Your task to perform on an android device: Do I have any events tomorrow? Image 0: 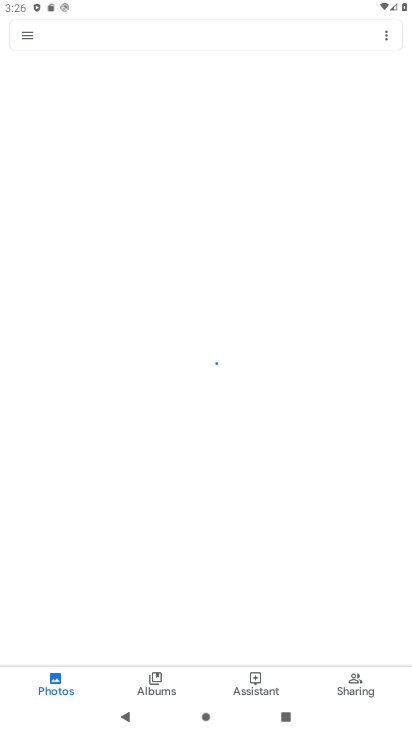
Step 0: press home button
Your task to perform on an android device: Do I have any events tomorrow? Image 1: 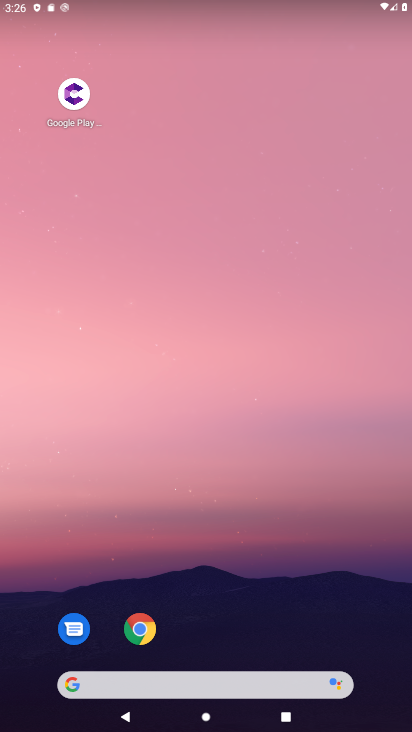
Step 1: drag from (237, 615) to (194, 72)
Your task to perform on an android device: Do I have any events tomorrow? Image 2: 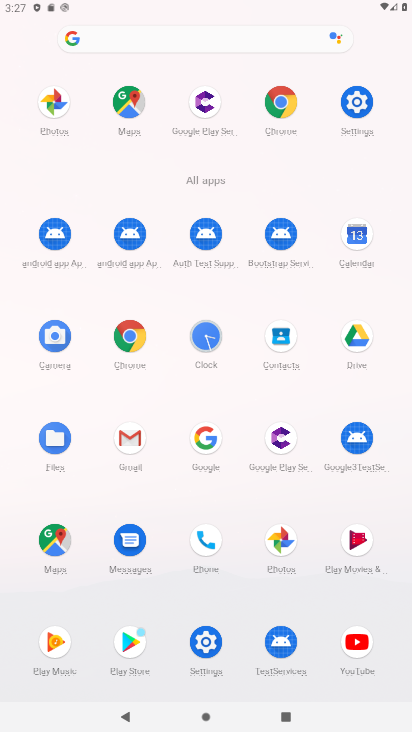
Step 2: click (354, 233)
Your task to perform on an android device: Do I have any events tomorrow? Image 3: 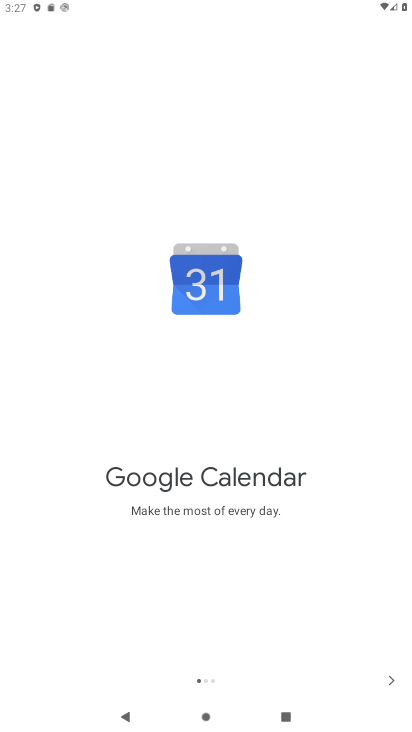
Step 3: click (390, 678)
Your task to perform on an android device: Do I have any events tomorrow? Image 4: 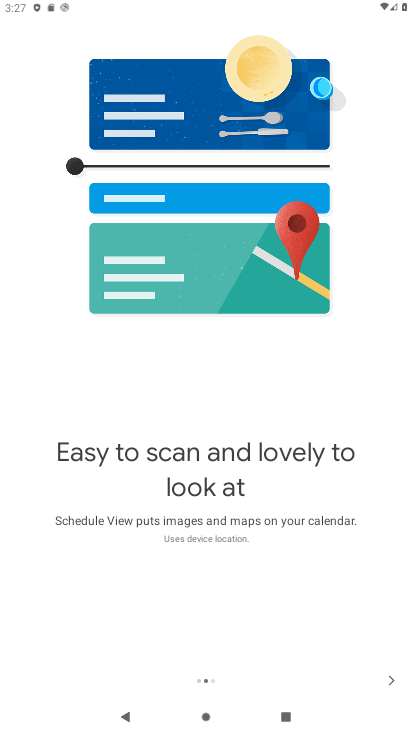
Step 4: click (390, 678)
Your task to perform on an android device: Do I have any events tomorrow? Image 5: 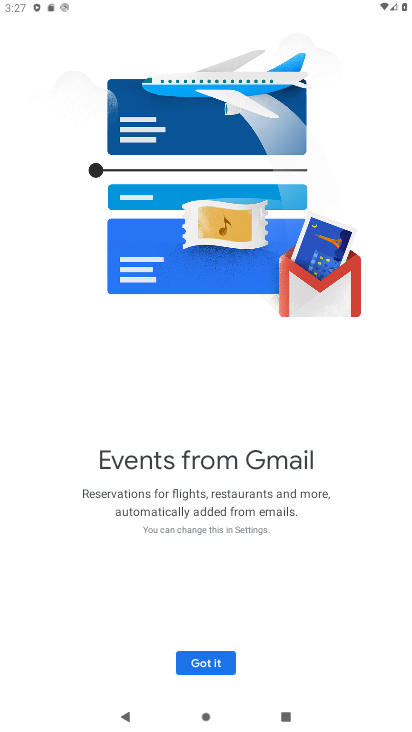
Step 5: click (209, 653)
Your task to perform on an android device: Do I have any events tomorrow? Image 6: 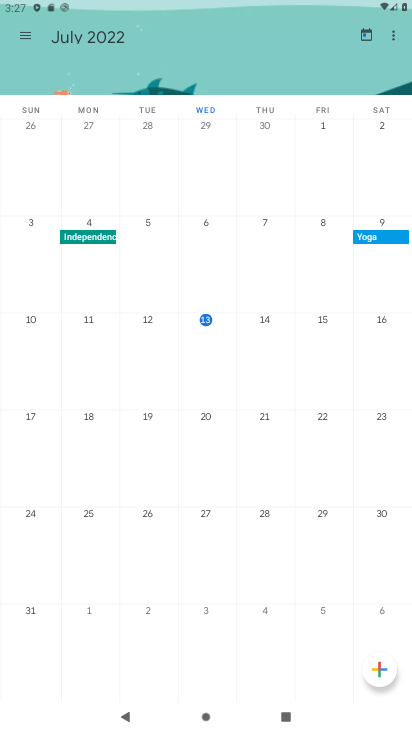
Step 6: click (257, 325)
Your task to perform on an android device: Do I have any events tomorrow? Image 7: 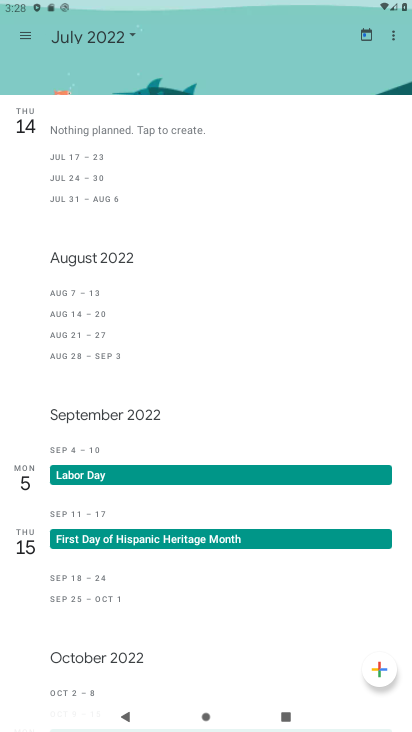
Step 7: task complete